Your task to perform on an android device: open device folders in google photos Image 0: 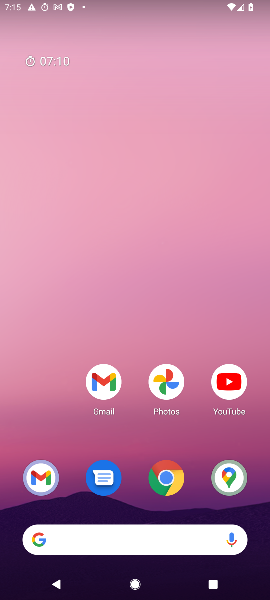
Step 0: drag from (156, 446) to (157, 249)
Your task to perform on an android device: open device folders in google photos Image 1: 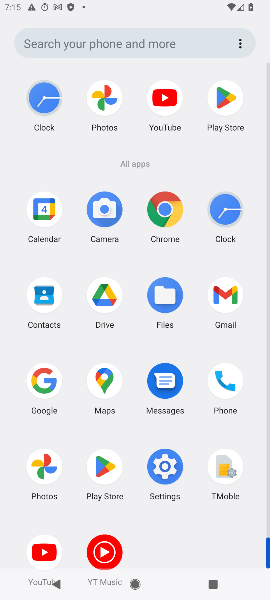
Step 1: click (50, 461)
Your task to perform on an android device: open device folders in google photos Image 2: 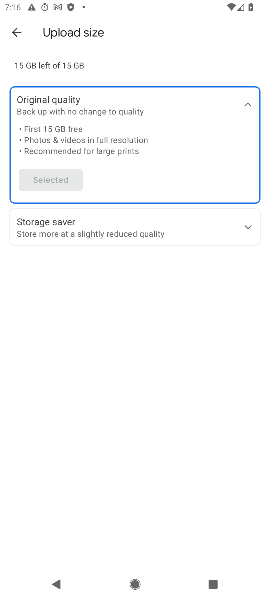
Step 2: click (12, 37)
Your task to perform on an android device: open device folders in google photos Image 3: 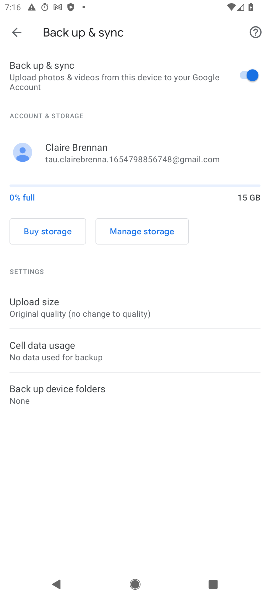
Step 3: click (18, 36)
Your task to perform on an android device: open device folders in google photos Image 4: 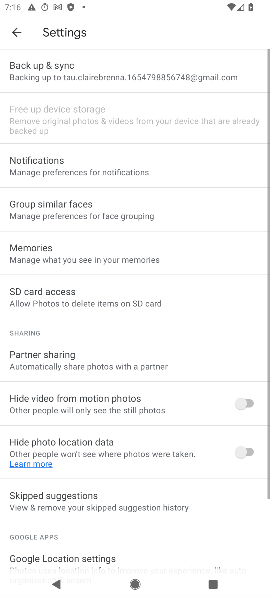
Step 4: task complete